Your task to perform on an android device: Go to Reddit.com Image 0: 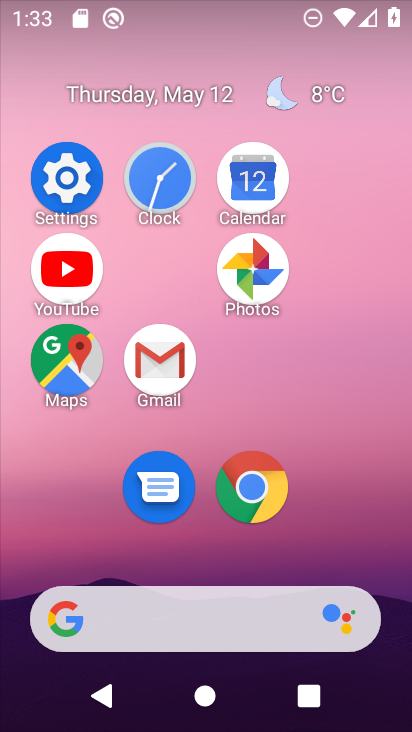
Step 0: click (252, 500)
Your task to perform on an android device: Go to Reddit.com Image 1: 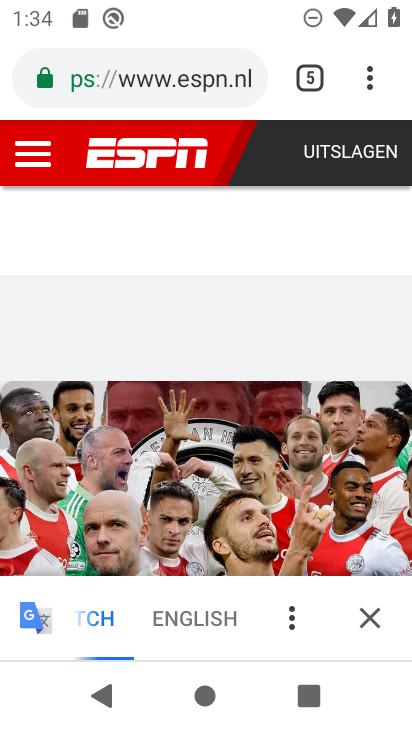
Step 1: click (303, 78)
Your task to perform on an android device: Go to Reddit.com Image 2: 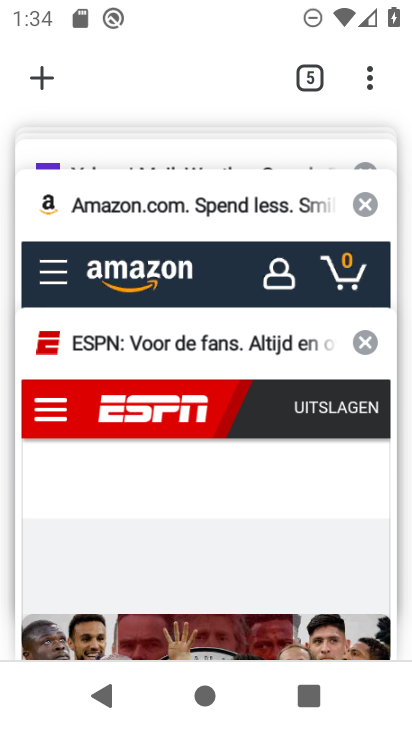
Step 2: click (39, 89)
Your task to perform on an android device: Go to Reddit.com Image 3: 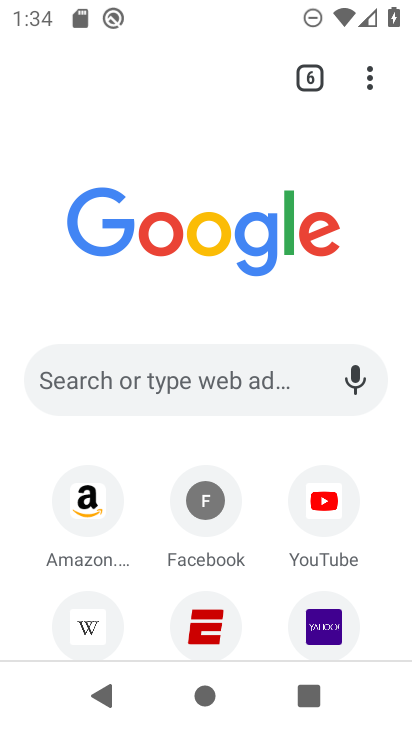
Step 3: click (221, 369)
Your task to perform on an android device: Go to Reddit.com Image 4: 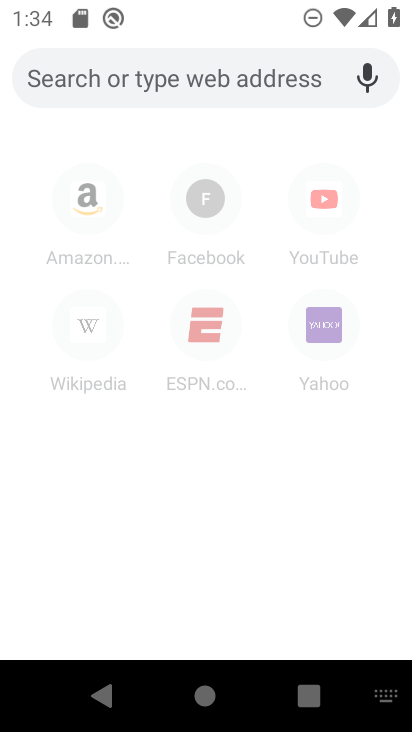
Step 4: type "reddit"
Your task to perform on an android device: Go to Reddit.com Image 5: 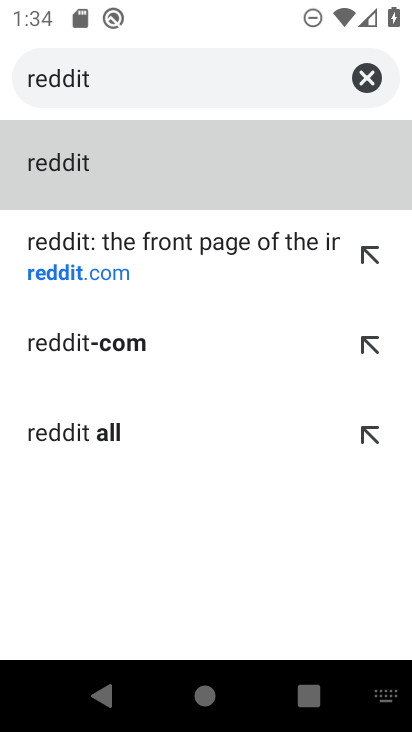
Step 5: click (107, 270)
Your task to perform on an android device: Go to Reddit.com Image 6: 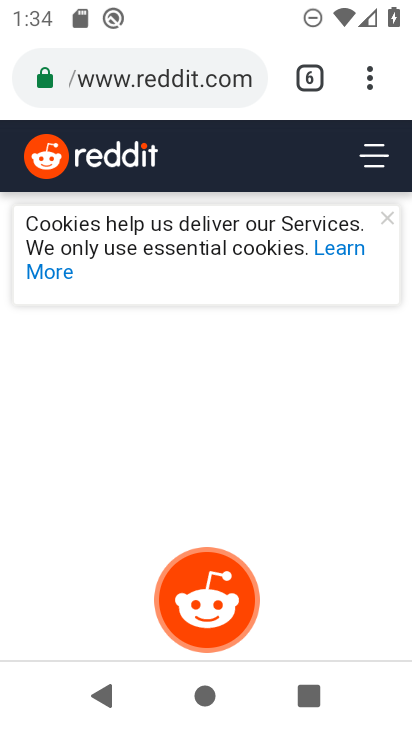
Step 6: task complete